Your task to perform on an android device: manage bookmarks in the chrome app Image 0: 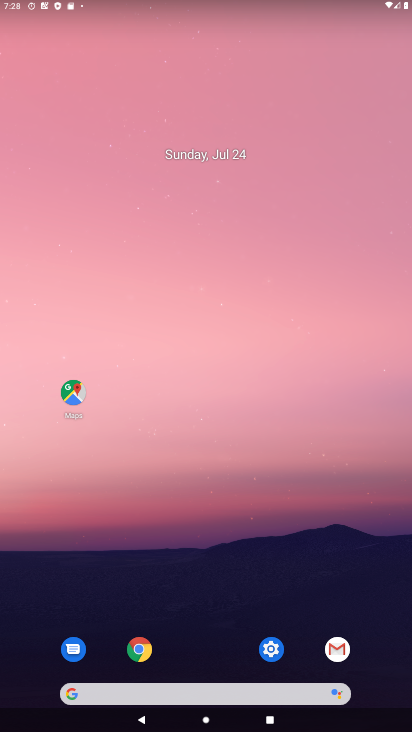
Step 0: click (126, 657)
Your task to perform on an android device: manage bookmarks in the chrome app Image 1: 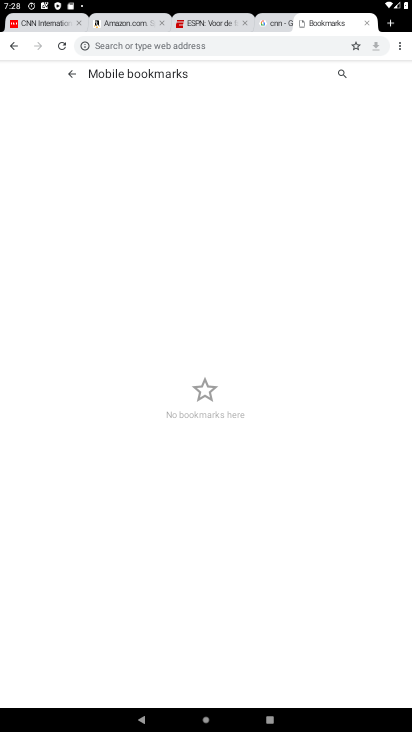
Step 1: click (395, 49)
Your task to perform on an android device: manage bookmarks in the chrome app Image 2: 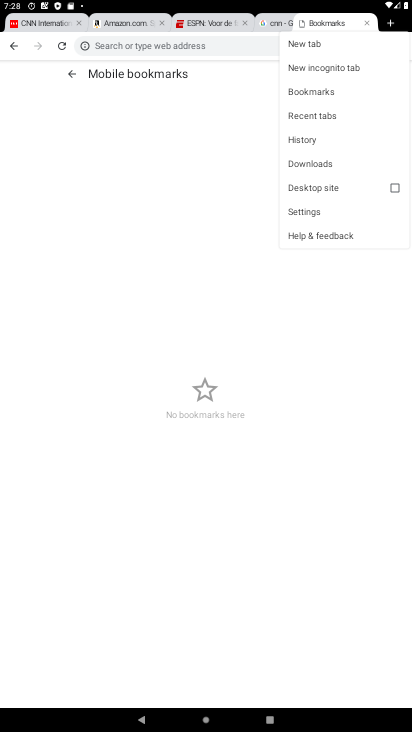
Step 2: click (314, 93)
Your task to perform on an android device: manage bookmarks in the chrome app Image 3: 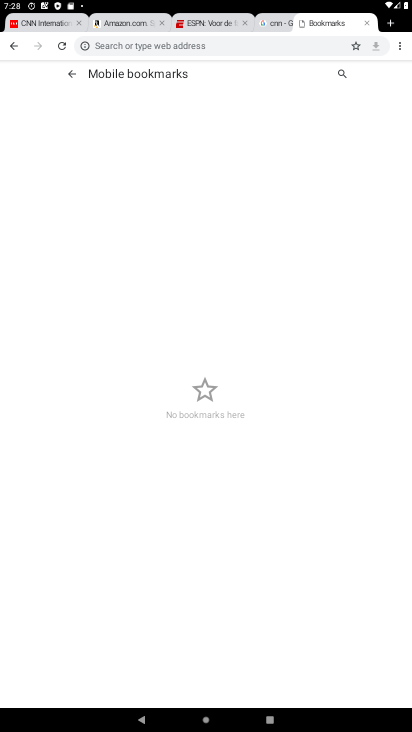
Step 3: task complete